Your task to perform on an android device: delete browsing data in the chrome app Image 0: 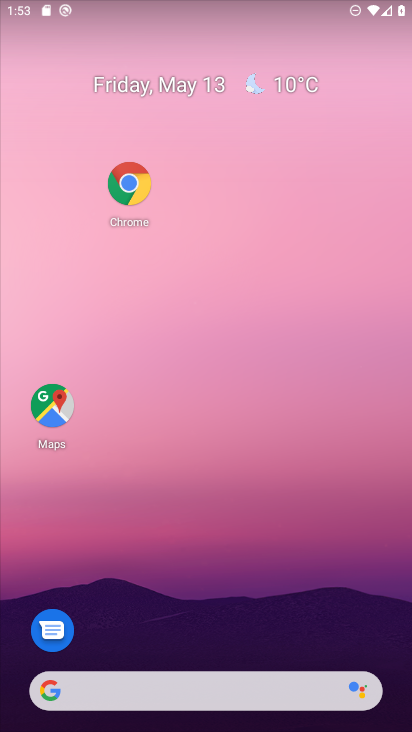
Step 0: click (135, 190)
Your task to perform on an android device: delete browsing data in the chrome app Image 1: 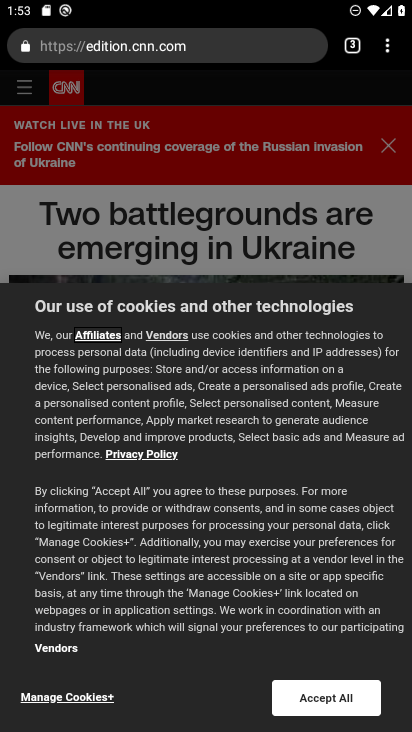
Step 1: drag from (384, 58) to (230, 302)
Your task to perform on an android device: delete browsing data in the chrome app Image 2: 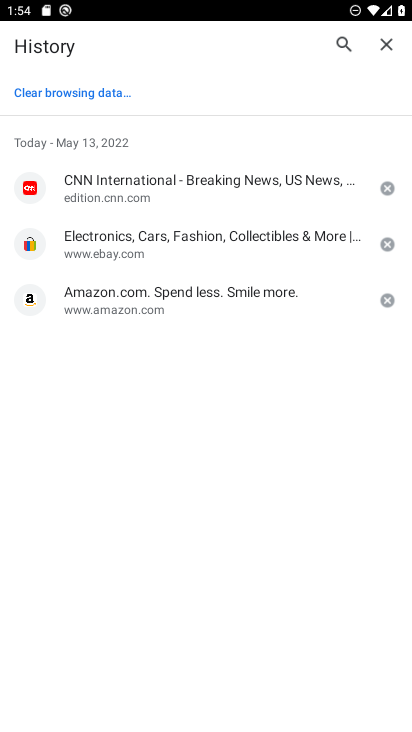
Step 2: click (77, 99)
Your task to perform on an android device: delete browsing data in the chrome app Image 3: 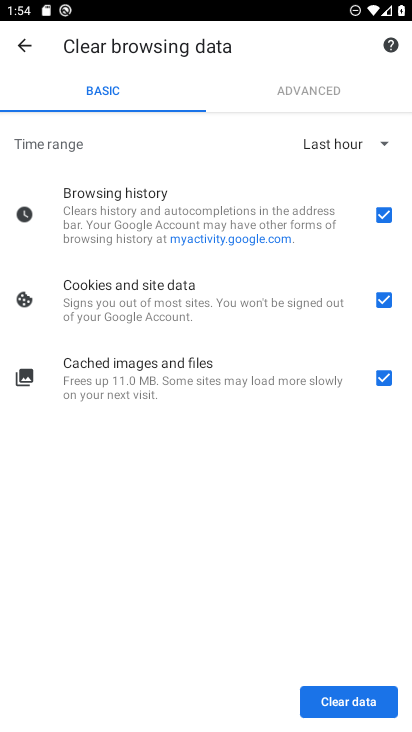
Step 3: click (350, 707)
Your task to perform on an android device: delete browsing data in the chrome app Image 4: 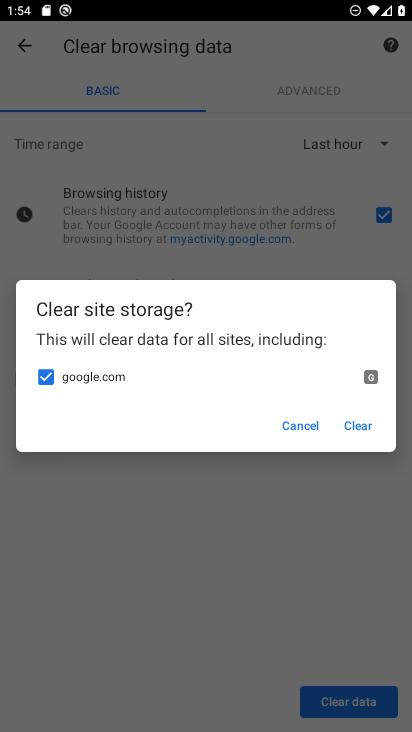
Step 4: click (356, 424)
Your task to perform on an android device: delete browsing data in the chrome app Image 5: 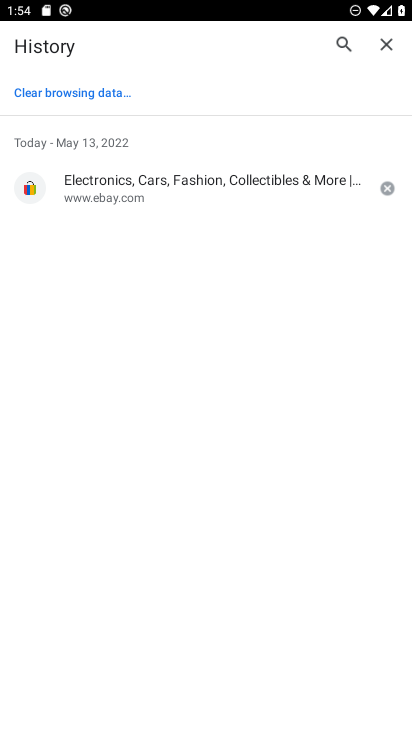
Step 5: task complete